Your task to perform on an android device: delete a single message in the gmail app Image 0: 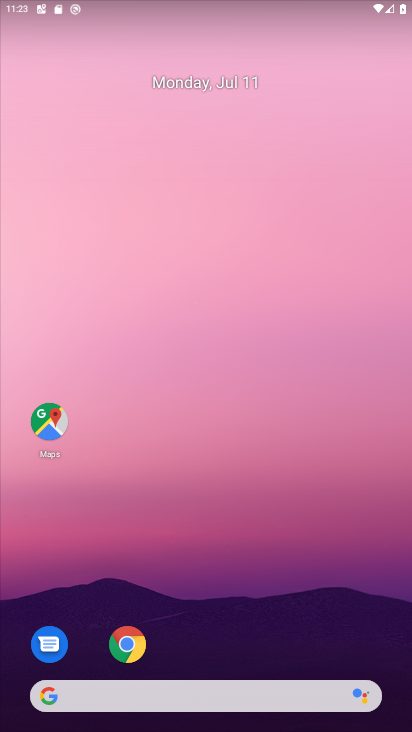
Step 0: drag from (323, 618) to (330, 131)
Your task to perform on an android device: delete a single message in the gmail app Image 1: 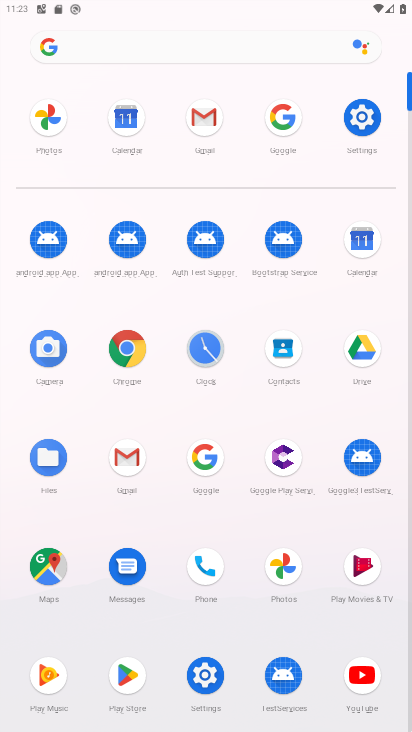
Step 1: click (201, 114)
Your task to perform on an android device: delete a single message in the gmail app Image 2: 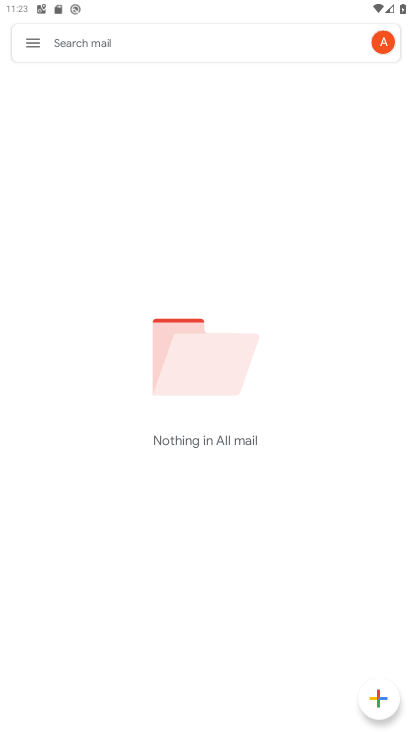
Step 2: click (25, 41)
Your task to perform on an android device: delete a single message in the gmail app Image 3: 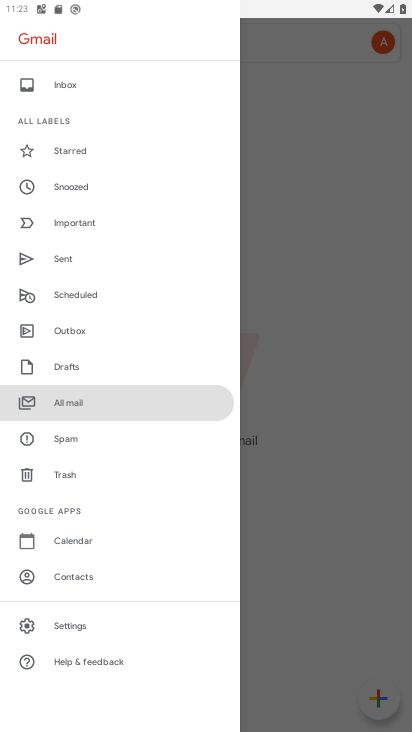
Step 3: click (119, 391)
Your task to perform on an android device: delete a single message in the gmail app Image 4: 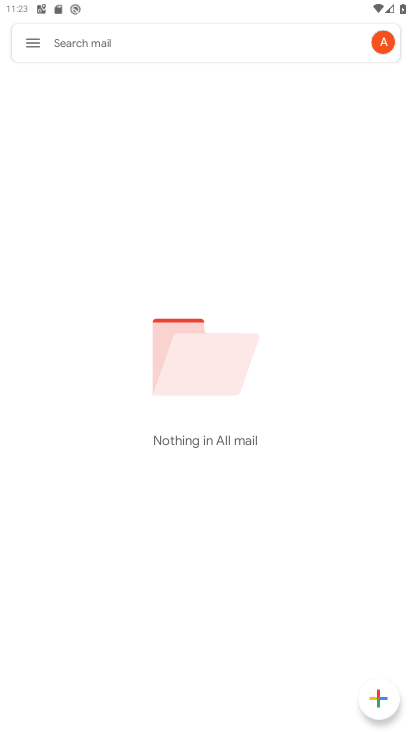
Step 4: task complete